Your task to perform on an android device: toggle wifi Image 0: 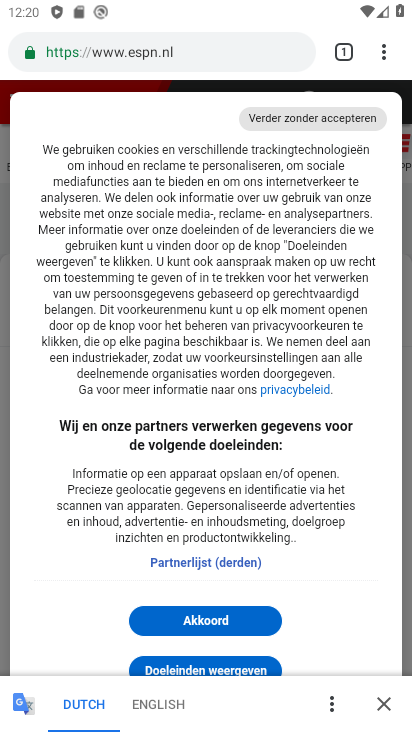
Step 0: press back button
Your task to perform on an android device: toggle wifi Image 1: 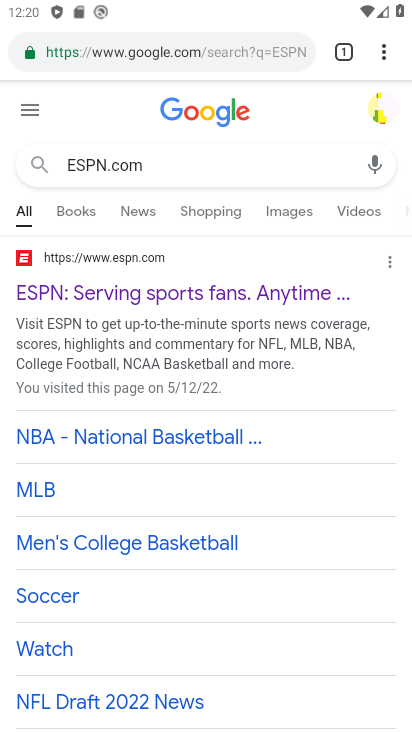
Step 1: press back button
Your task to perform on an android device: toggle wifi Image 2: 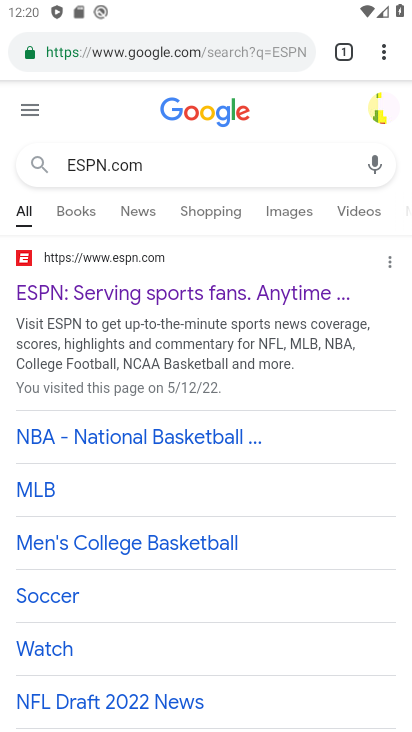
Step 2: press back button
Your task to perform on an android device: toggle wifi Image 3: 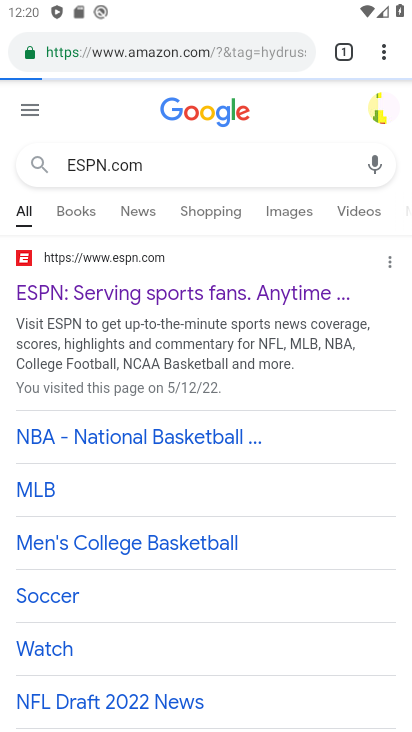
Step 3: press back button
Your task to perform on an android device: toggle wifi Image 4: 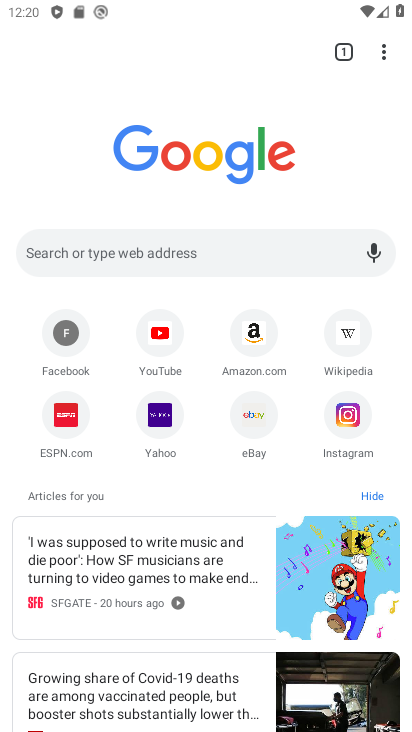
Step 4: press back button
Your task to perform on an android device: toggle wifi Image 5: 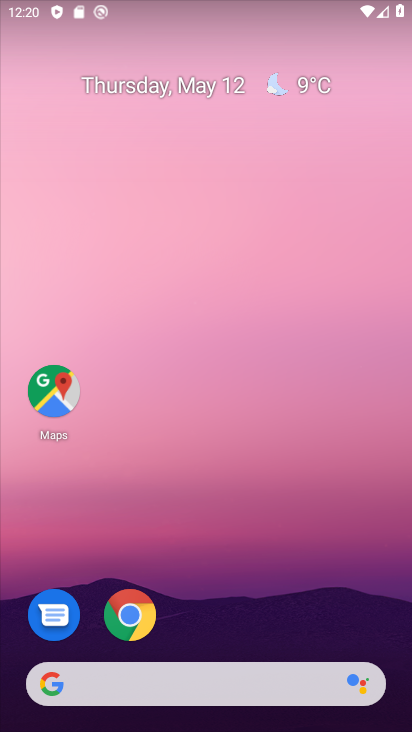
Step 5: drag from (232, 592) to (254, 71)
Your task to perform on an android device: toggle wifi Image 6: 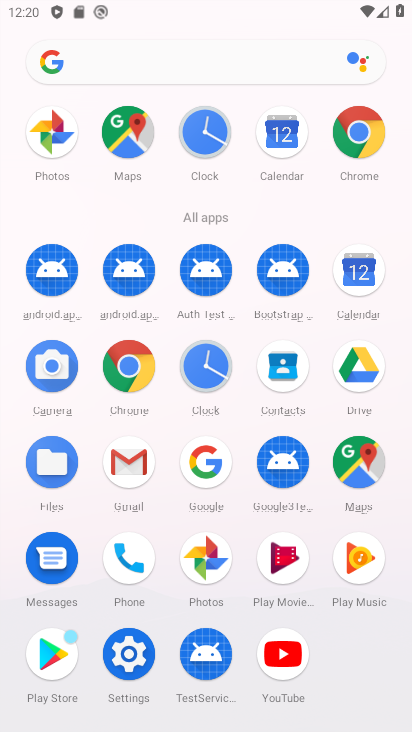
Step 6: click (128, 653)
Your task to perform on an android device: toggle wifi Image 7: 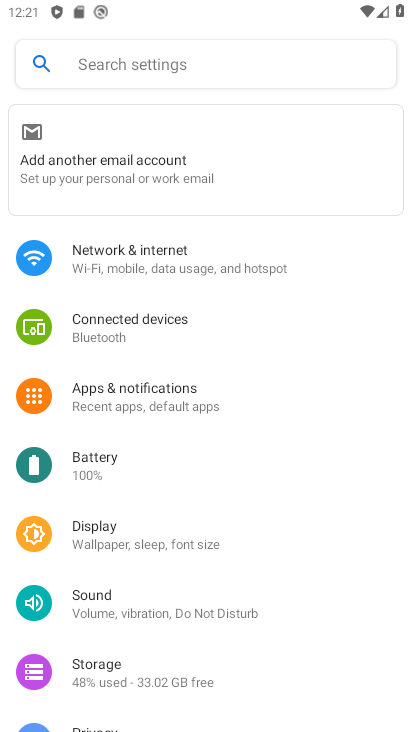
Step 7: click (174, 265)
Your task to perform on an android device: toggle wifi Image 8: 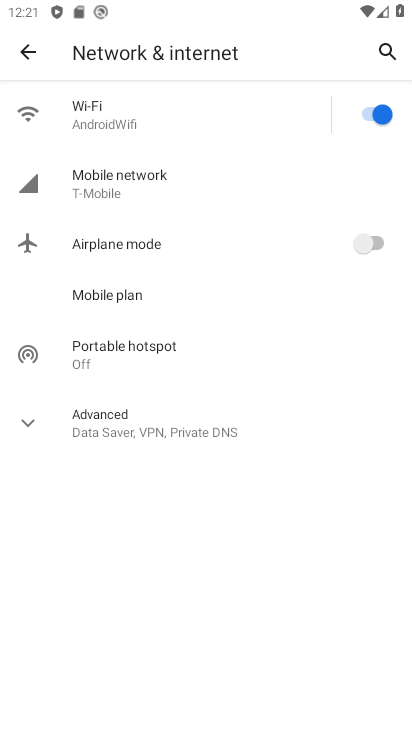
Step 8: click (388, 116)
Your task to perform on an android device: toggle wifi Image 9: 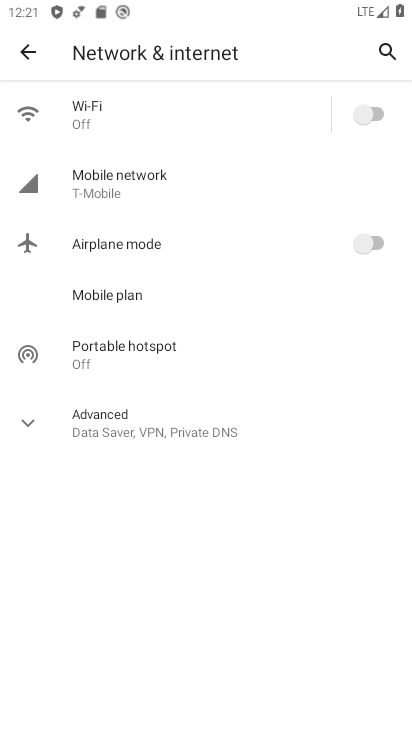
Step 9: task complete